Your task to perform on an android device: change the clock style Image 0: 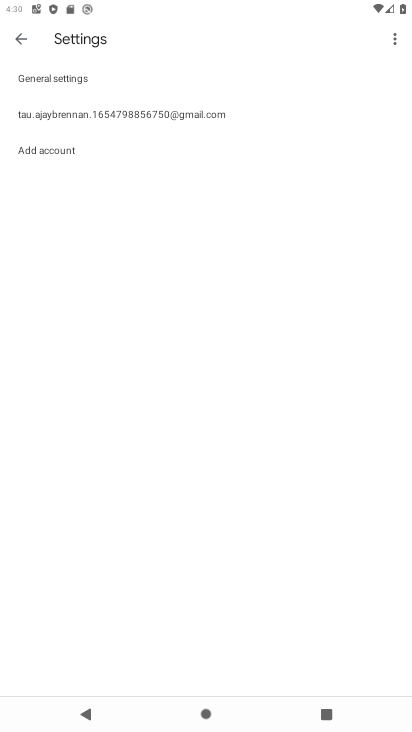
Step 0: press home button
Your task to perform on an android device: change the clock style Image 1: 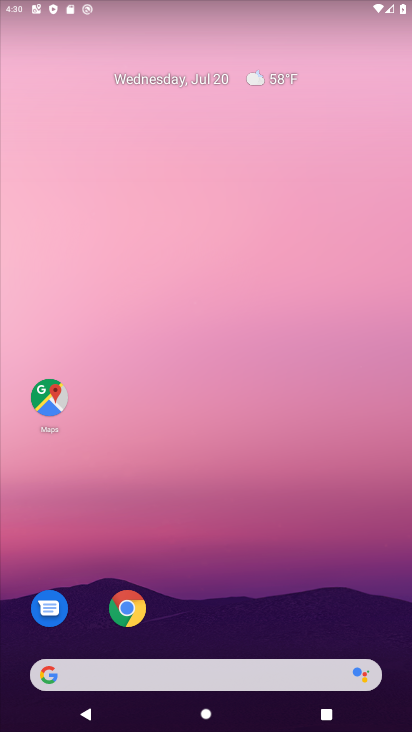
Step 1: drag from (201, 642) to (136, 24)
Your task to perform on an android device: change the clock style Image 2: 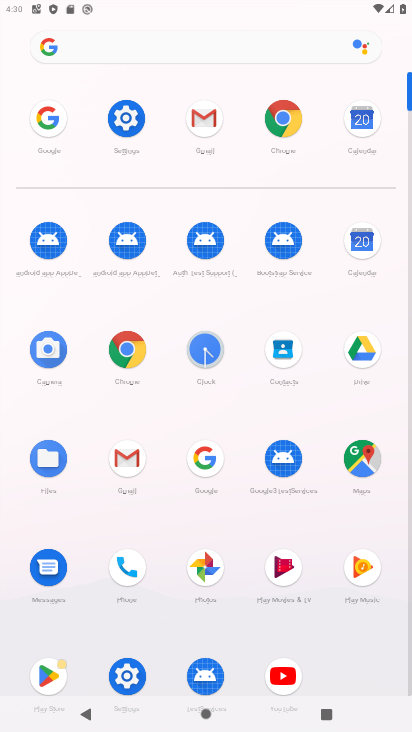
Step 2: click (197, 358)
Your task to perform on an android device: change the clock style Image 3: 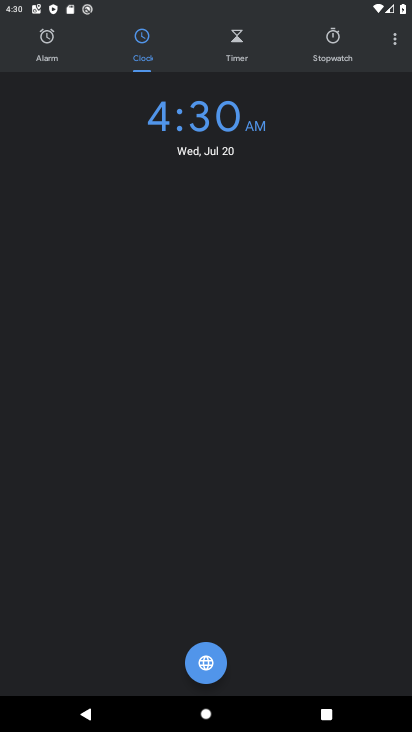
Step 3: click (397, 39)
Your task to perform on an android device: change the clock style Image 4: 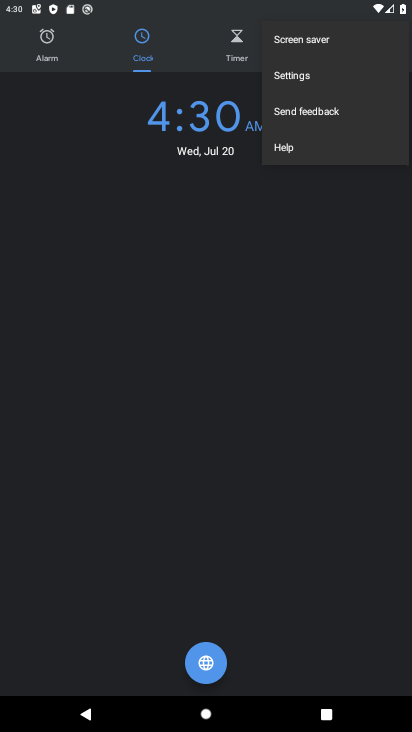
Step 4: click (299, 78)
Your task to perform on an android device: change the clock style Image 5: 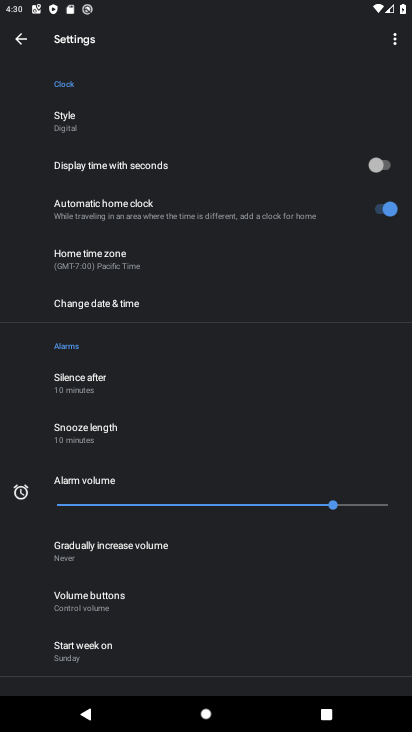
Step 5: click (82, 114)
Your task to perform on an android device: change the clock style Image 6: 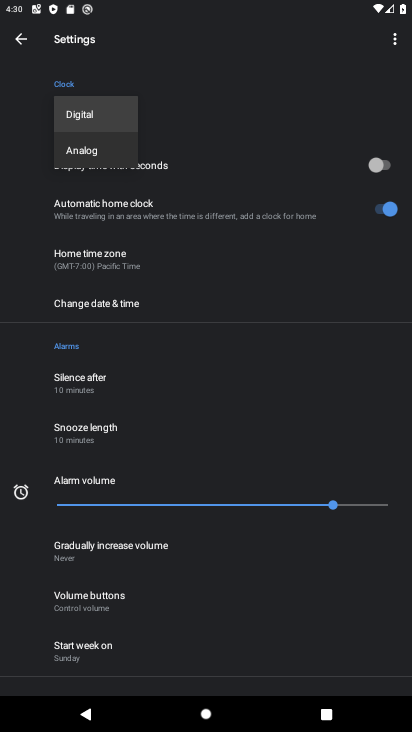
Step 6: click (98, 156)
Your task to perform on an android device: change the clock style Image 7: 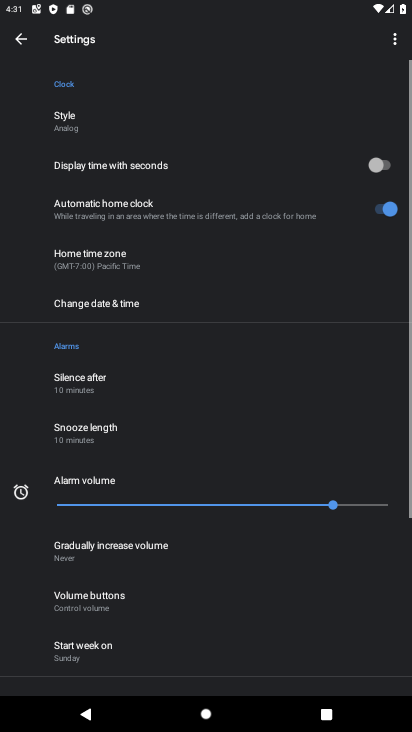
Step 7: task complete